Your task to perform on an android device: toggle notification dots Image 0: 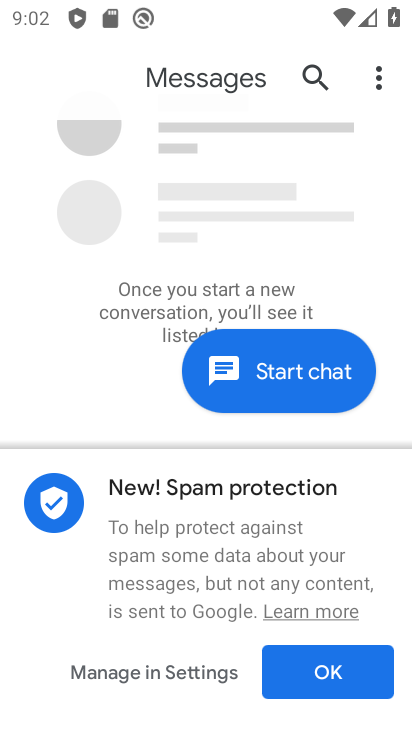
Step 0: press home button
Your task to perform on an android device: toggle notification dots Image 1: 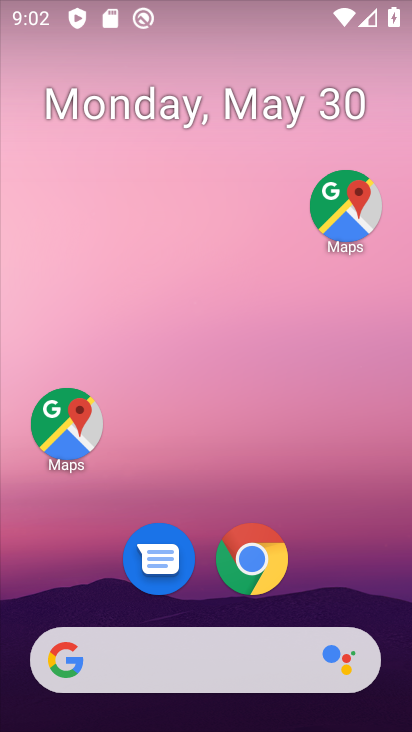
Step 1: drag from (357, 562) to (299, 103)
Your task to perform on an android device: toggle notification dots Image 2: 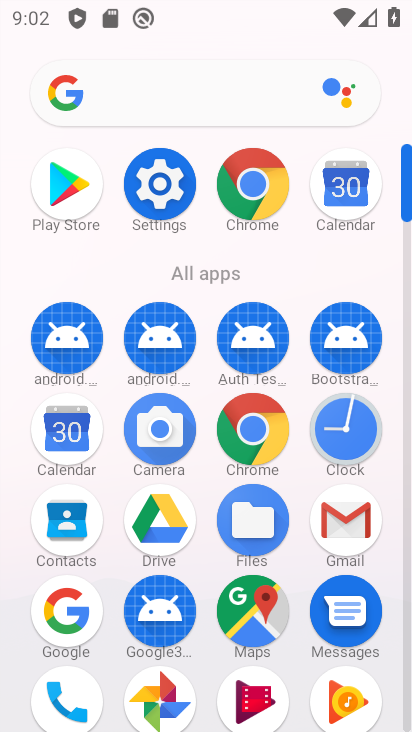
Step 2: click (168, 194)
Your task to perform on an android device: toggle notification dots Image 3: 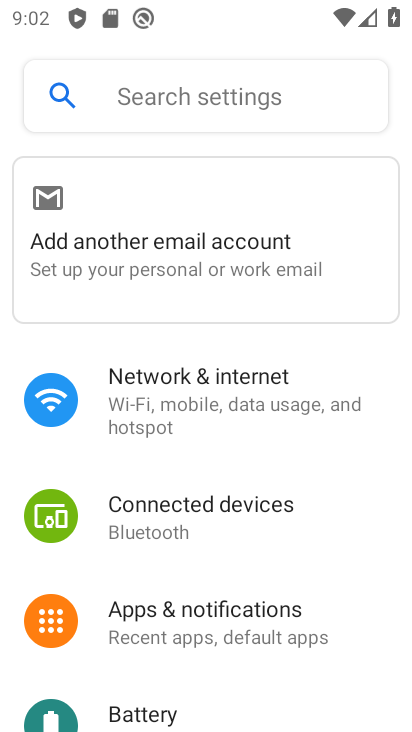
Step 3: click (229, 620)
Your task to perform on an android device: toggle notification dots Image 4: 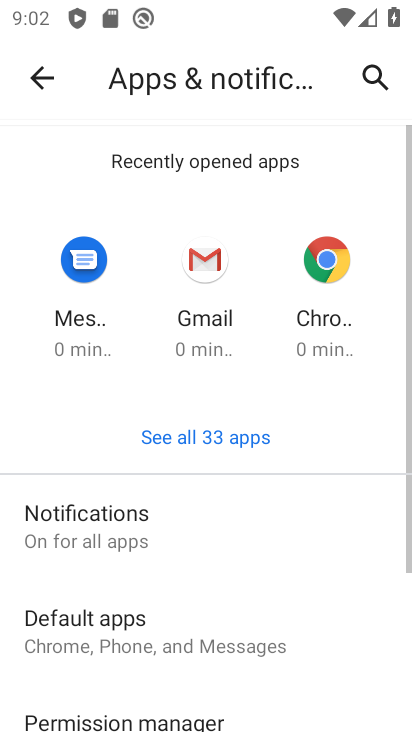
Step 4: click (110, 509)
Your task to perform on an android device: toggle notification dots Image 5: 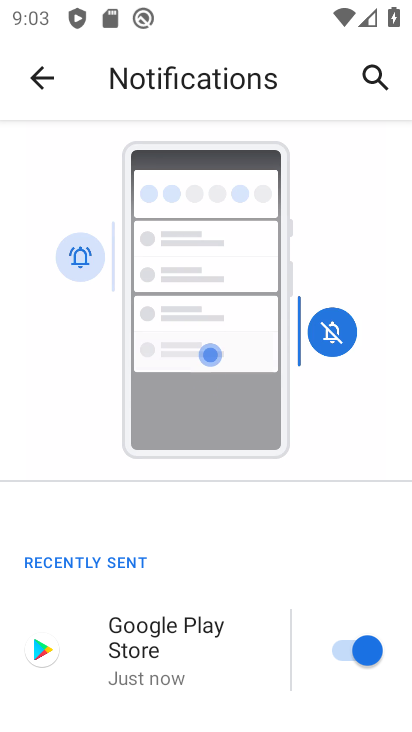
Step 5: drag from (236, 589) to (329, 14)
Your task to perform on an android device: toggle notification dots Image 6: 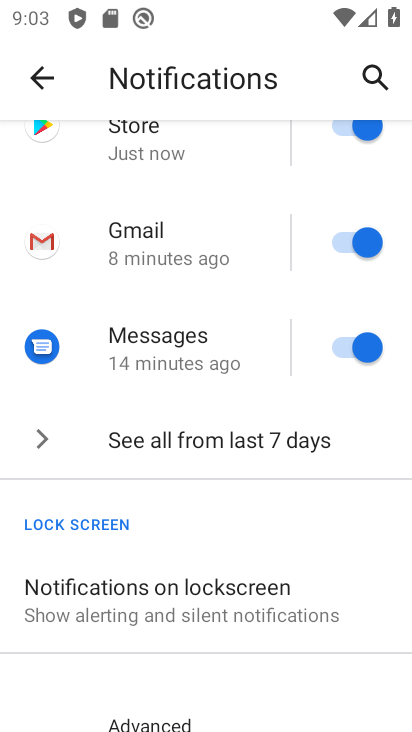
Step 6: drag from (207, 627) to (237, 205)
Your task to perform on an android device: toggle notification dots Image 7: 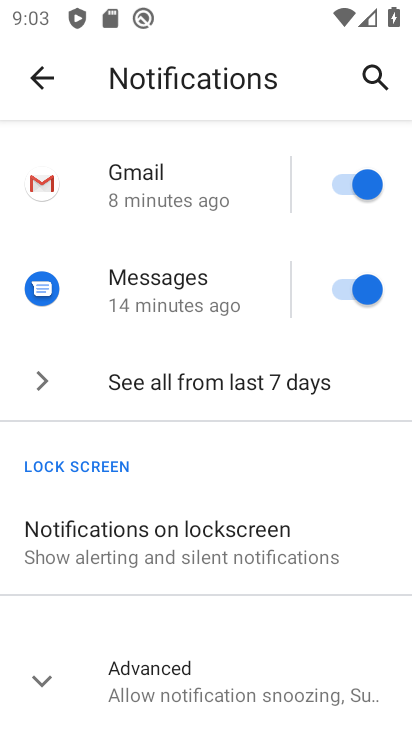
Step 7: click (151, 679)
Your task to perform on an android device: toggle notification dots Image 8: 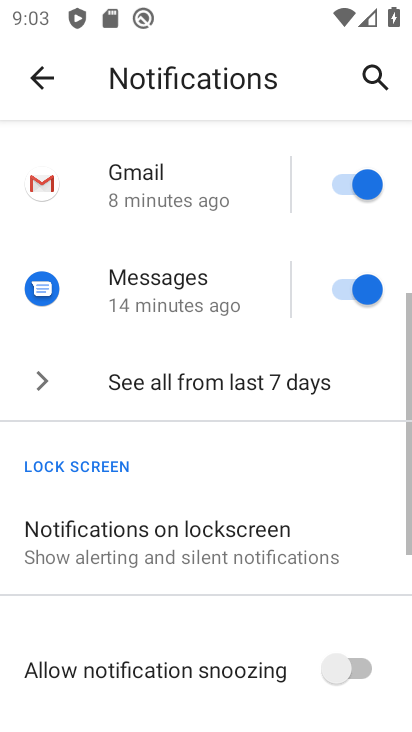
Step 8: drag from (257, 637) to (243, 150)
Your task to perform on an android device: toggle notification dots Image 9: 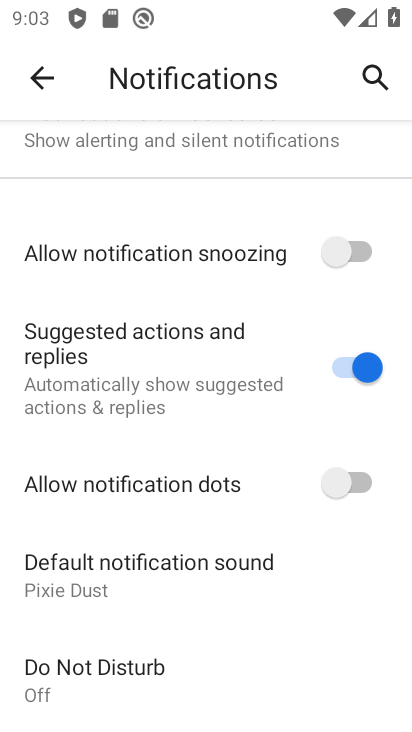
Step 9: click (347, 489)
Your task to perform on an android device: toggle notification dots Image 10: 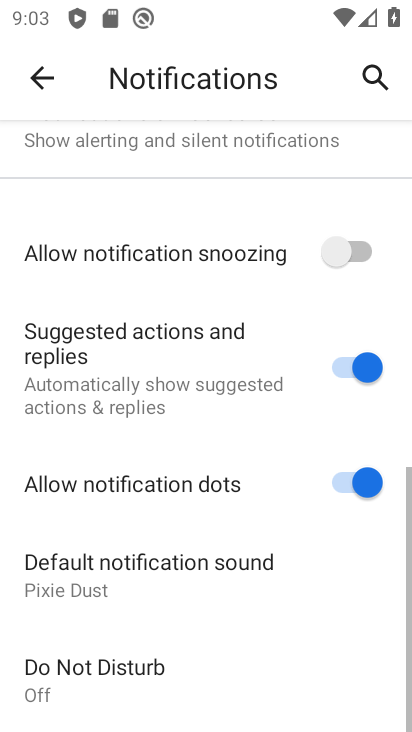
Step 10: task complete